Your task to perform on an android device: Go to display settings Image 0: 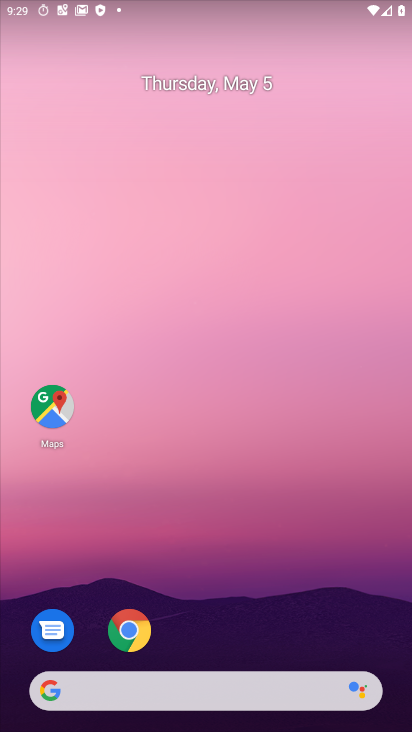
Step 0: drag from (252, 635) to (73, 147)
Your task to perform on an android device: Go to display settings Image 1: 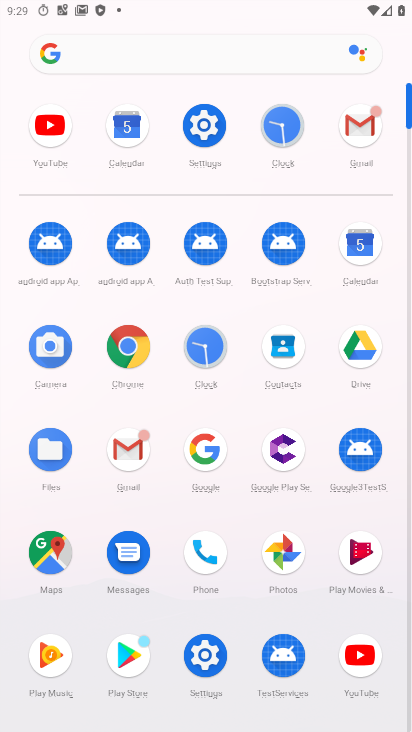
Step 1: click (203, 658)
Your task to perform on an android device: Go to display settings Image 2: 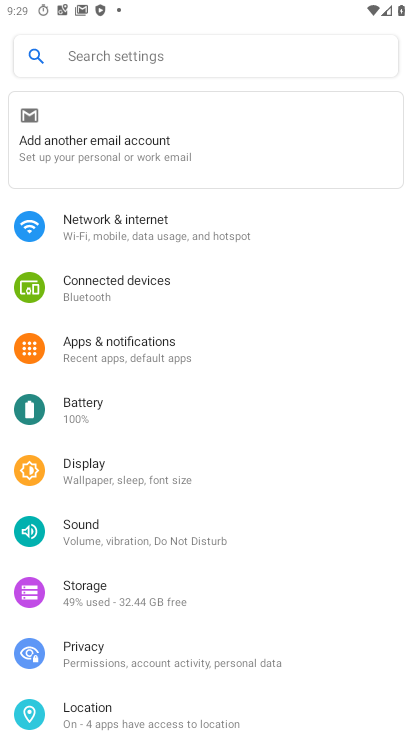
Step 2: click (117, 477)
Your task to perform on an android device: Go to display settings Image 3: 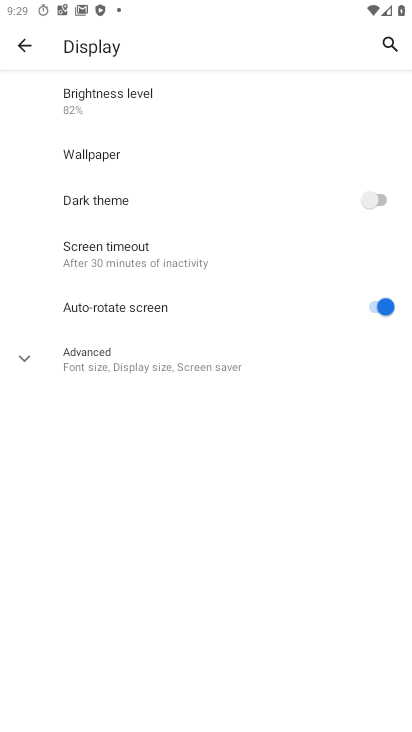
Step 3: click (130, 352)
Your task to perform on an android device: Go to display settings Image 4: 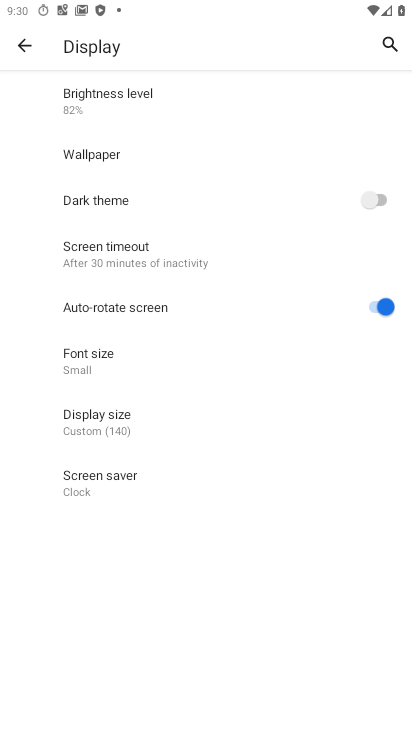
Step 4: task complete